Your task to perform on an android device: turn smart compose on in the gmail app Image 0: 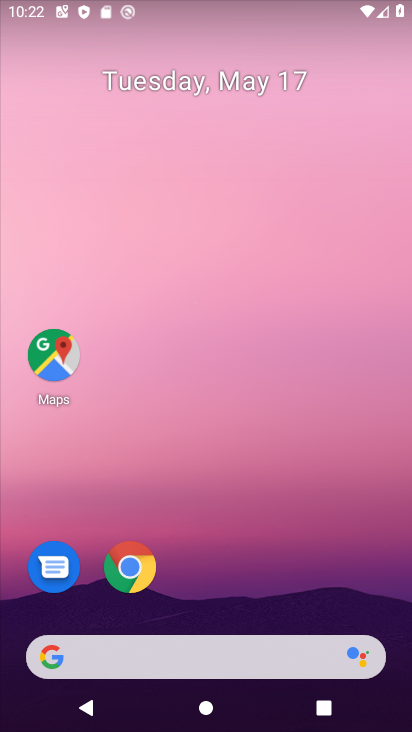
Step 0: drag from (252, 604) to (211, 129)
Your task to perform on an android device: turn smart compose on in the gmail app Image 1: 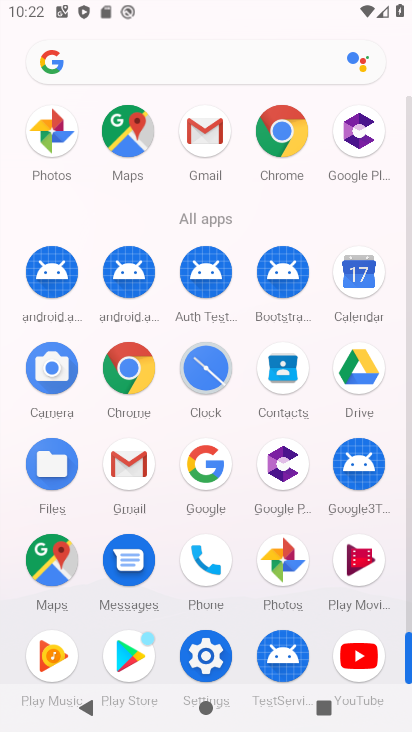
Step 1: click (137, 478)
Your task to perform on an android device: turn smart compose on in the gmail app Image 2: 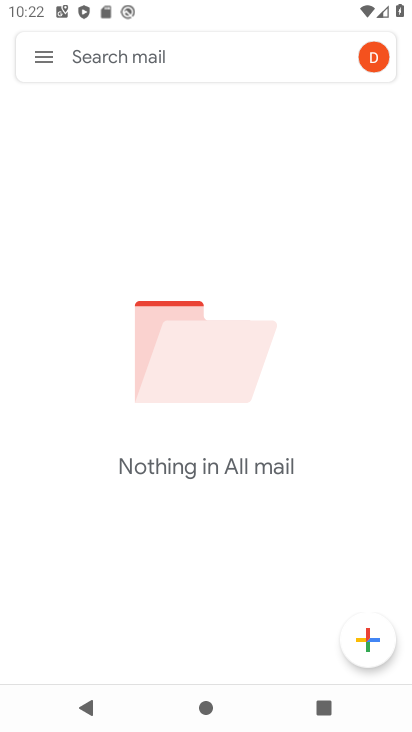
Step 2: click (50, 52)
Your task to perform on an android device: turn smart compose on in the gmail app Image 3: 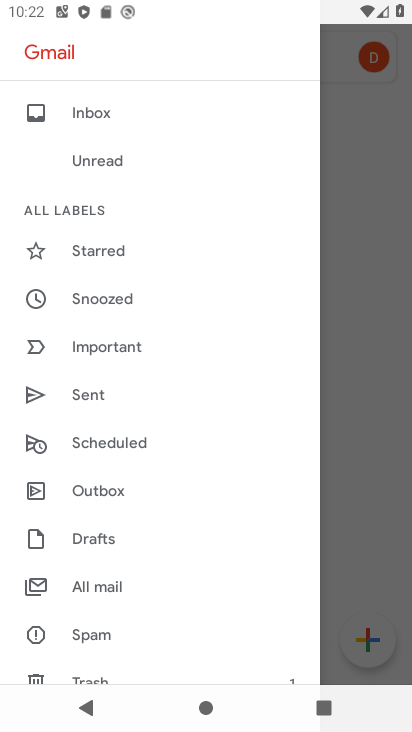
Step 3: drag from (90, 632) to (79, 204)
Your task to perform on an android device: turn smart compose on in the gmail app Image 4: 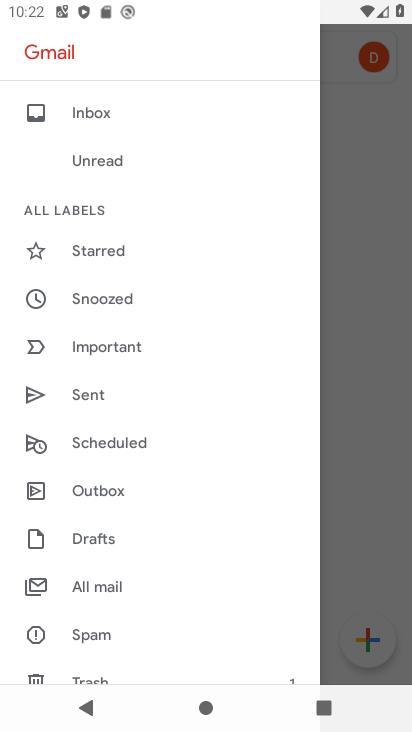
Step 4: drag from (178, 512) to (167, 155)
Your task to perform on an android device: turn smart compose on in the gmail app Image 5: 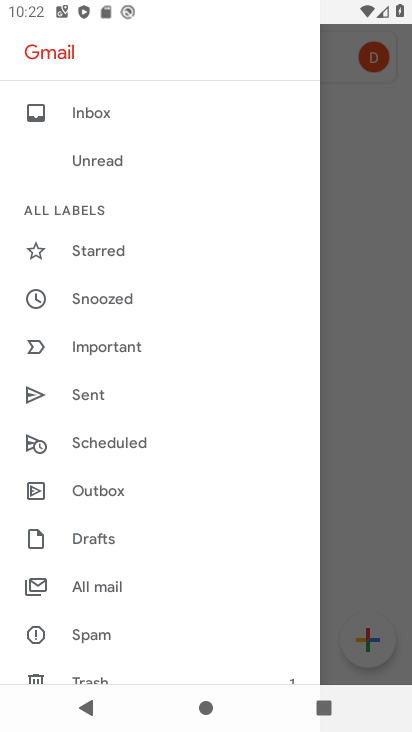
Step 5: drag from (242, 694) to (302, 340)
Your task to perform on an android device: turn smart compose on in the gmail app Image 6: 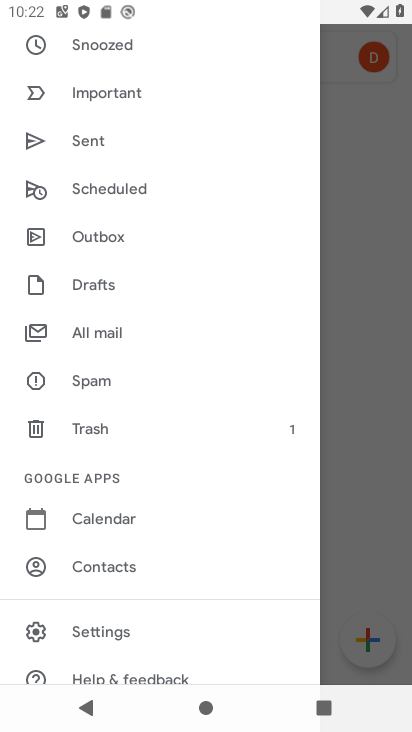
Step 6: click (62, 632)
Your task to perform on an android device: turn smart compose on in the gmail app Image 7: 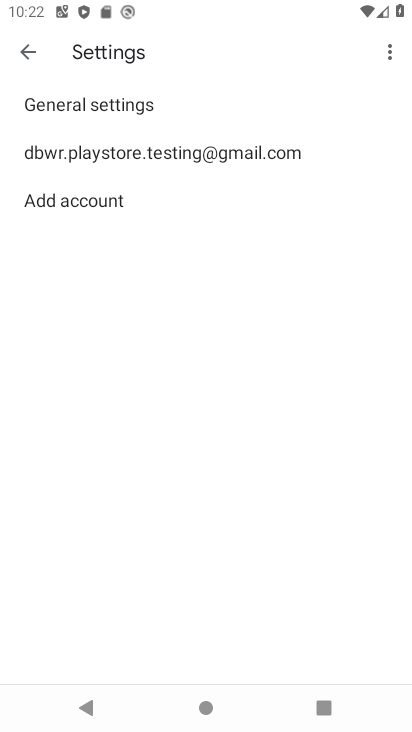
Step 7: click (75, 158)
Your task to perform on an android device: turn smart compose on in the gmail app Image 8: 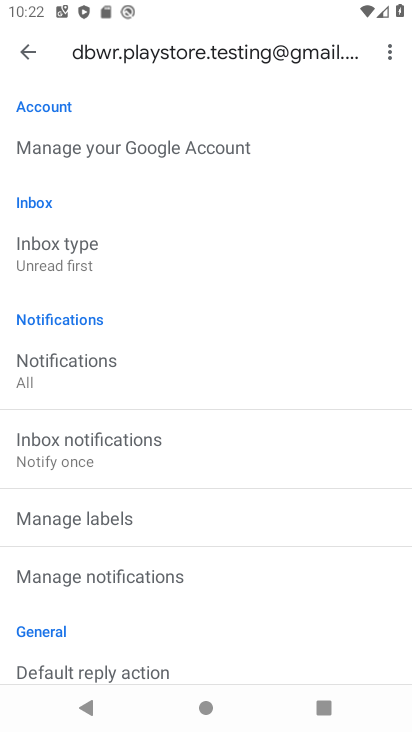
Step 8: drag from (211, 660) to (198, 283)
Your task to perform on an android device: turn smart compose on in the gmail app Image 9: 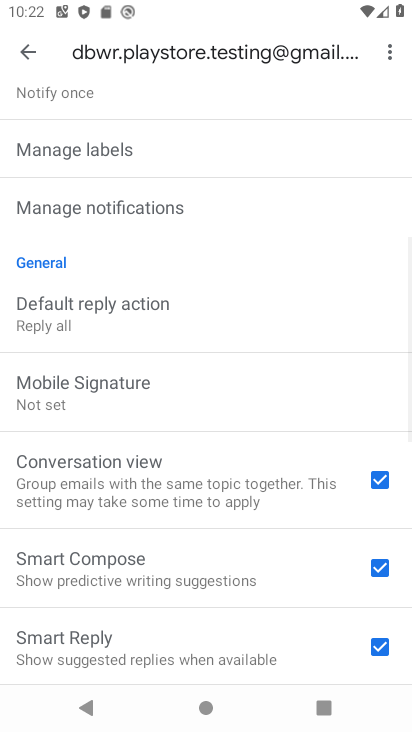
Step 9: drag from (162, 558) to (154, 261)
Your task to perform on an android device: turn smart compose on in the gmail app Image 10: 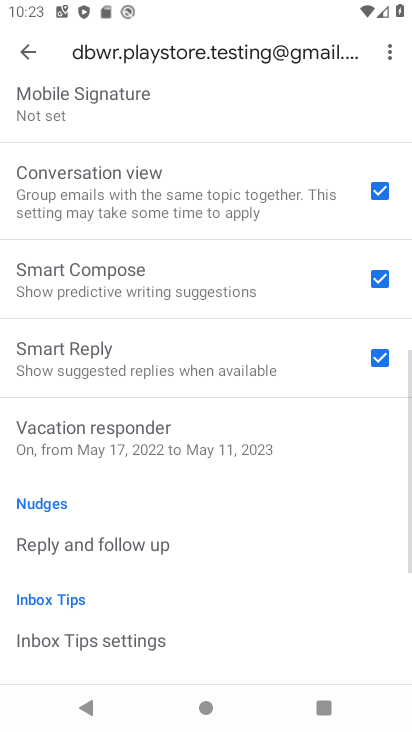
Step 10: click (154, 261)
Your task to perform on an android device: turn smart compose on in the gmail app Image 11: 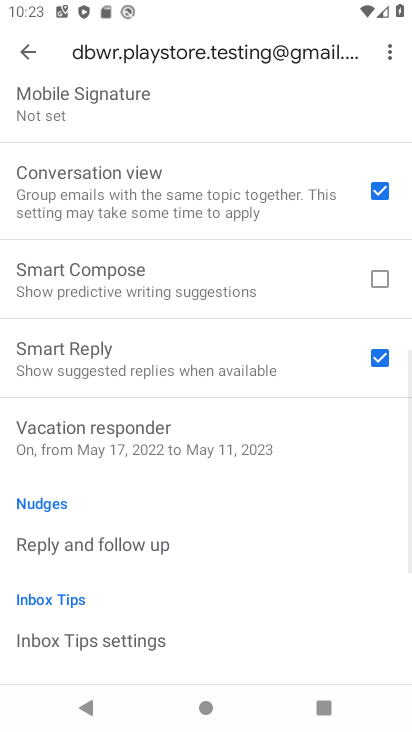
Step 11: task complete